Your task to perform on an android device: allow cookies in the chrome app Image 0: 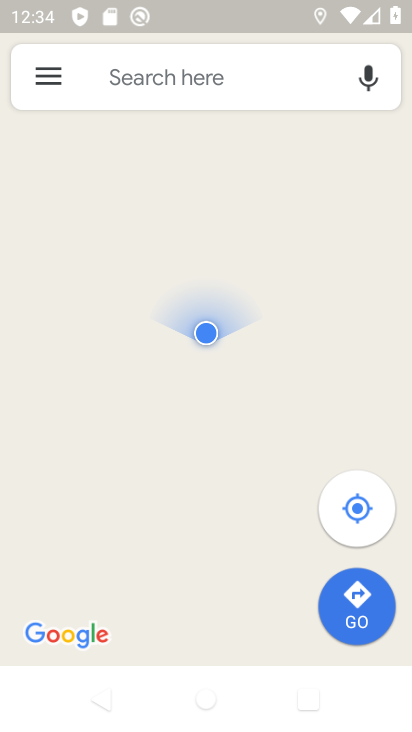
Step 0: press home button
Your task to perform on an android device: allow cookies in the chrome app Image 1: 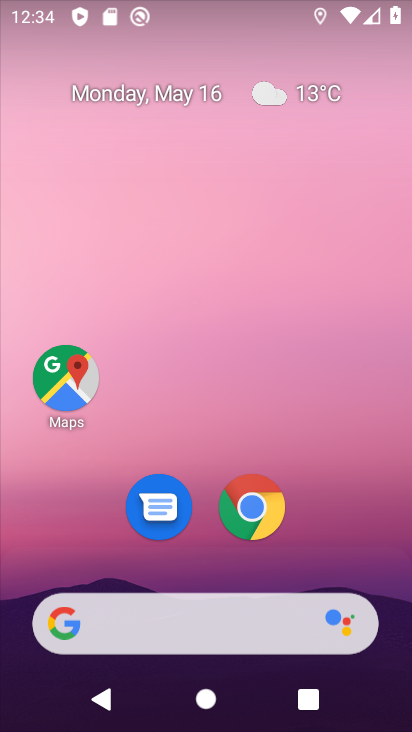
Step 1: click (254, 512)
Your task to perform on an android device: allow cookies in the chrome app Image 2: 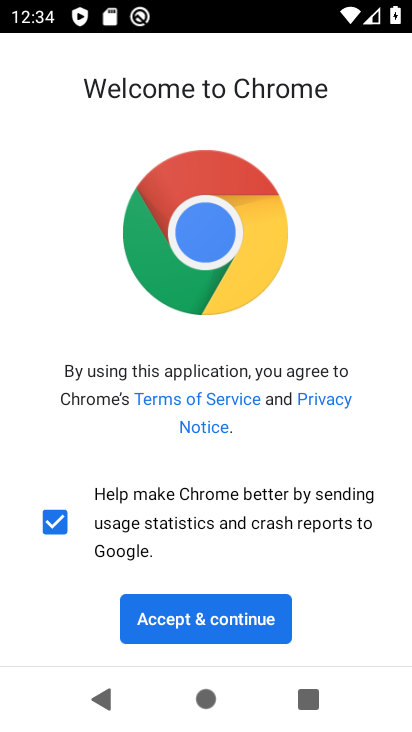
Step 2: click (231, 623)
Your task to perform on an android device: allow cookies in the chrome app Image 3: 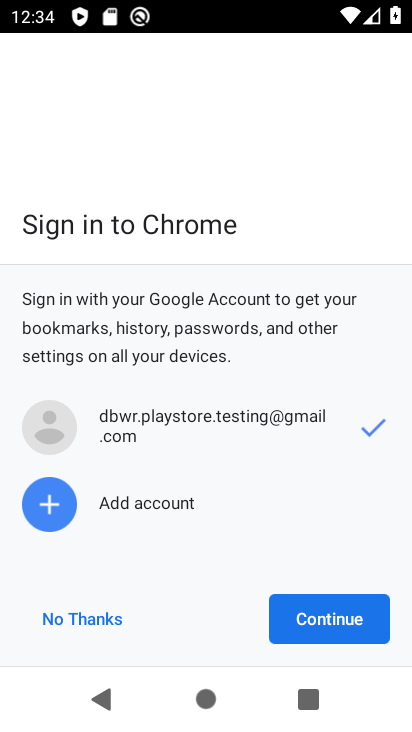
Step 3: click (334, 628)
Your task to perform on an android device: allow cookies in the chrome app Image 4: 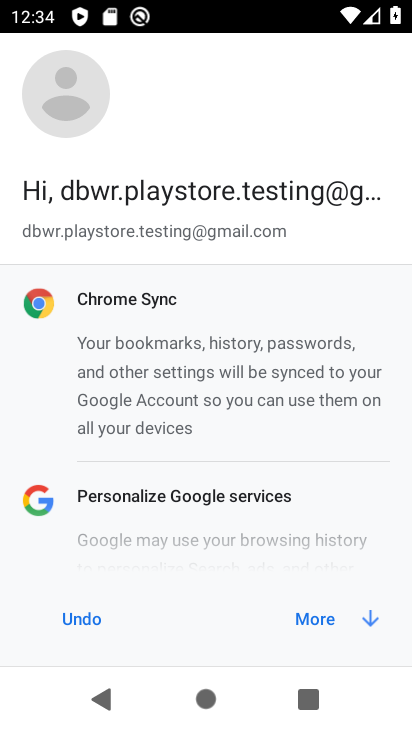
Step 4: click (316, 628)
Your task to perform on an android device: allow cookies in the chrome app Image 5: 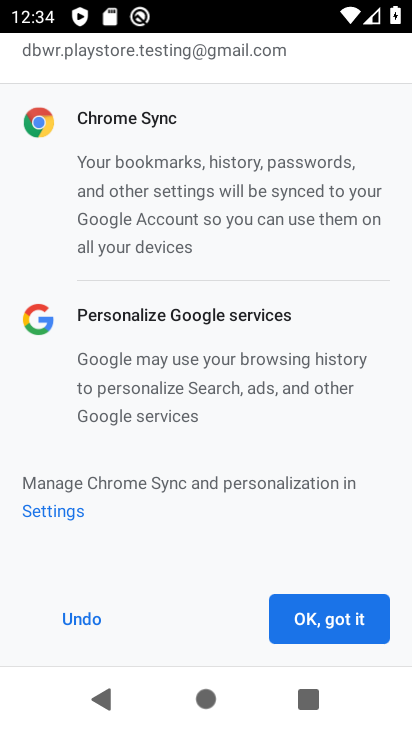
Step 5: click (317, 627)
Your task to perform on an android device: allow cookies in the chrome app Image 6: 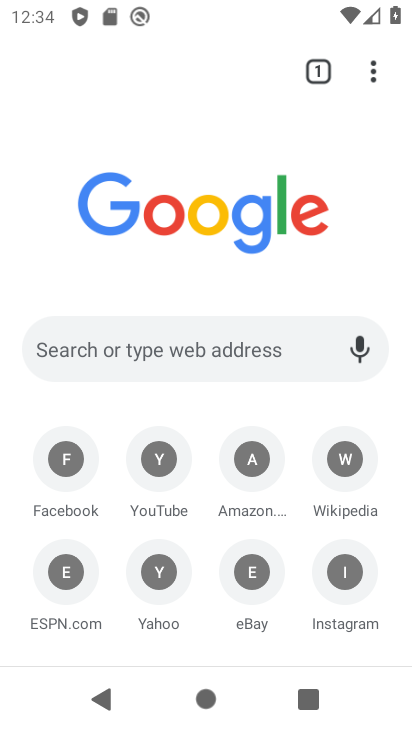
Step 6: click (378, 73)
Your task to perform on an android device: allow cookies in the chrome app Image 7: 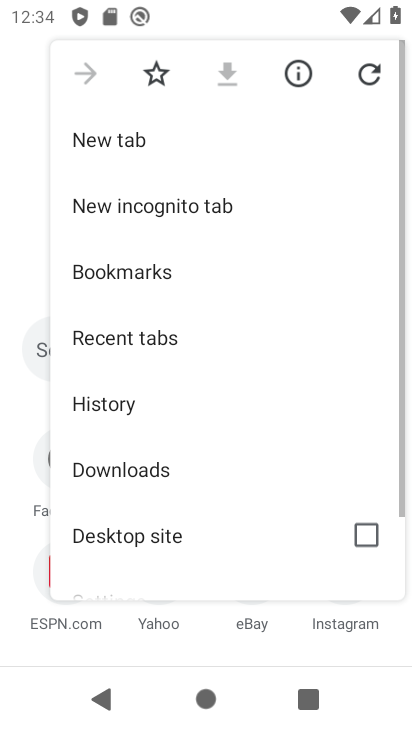
Step 7: drag from (211, 498) to (266, 266)
Your task to perform on an android device: allow cookies in the chrome app Image 8: 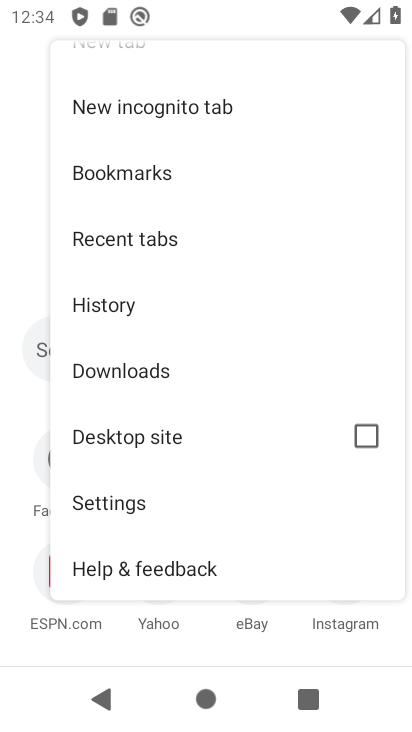
Step 8: click (142, 493)
Your task to perform on an android device: allow cookies in the chrome app Image 9: 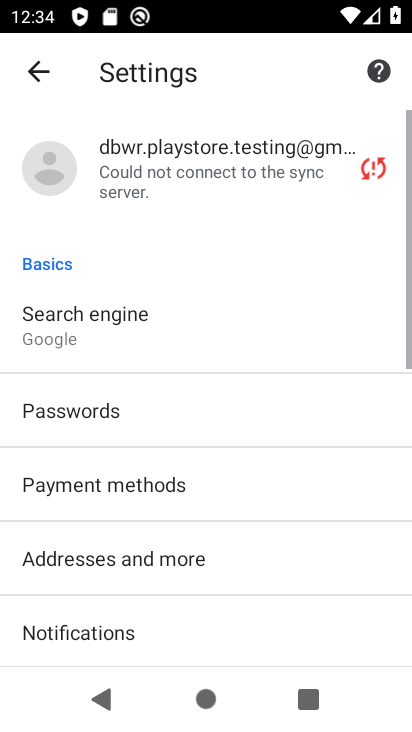
Step 9: drag from (146, 506) to (206, 286)
Your task to perform on an android device: allow cookies in the chrome app Image 10: 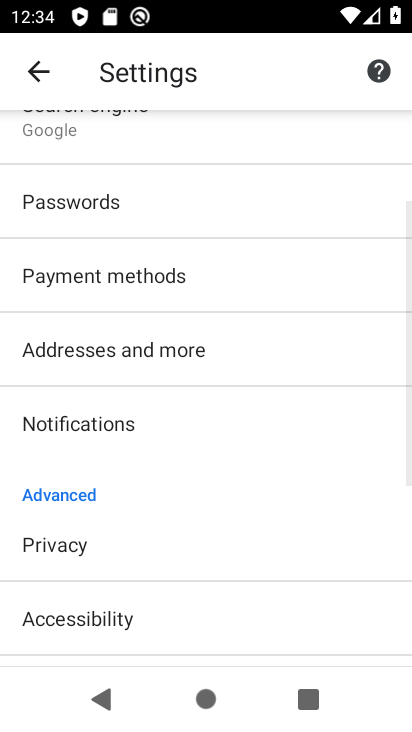
Step 10: drag from (173, 516) to (207, 359)
Your task to perform on an android device: allow cookies in the chrome app Image 11: 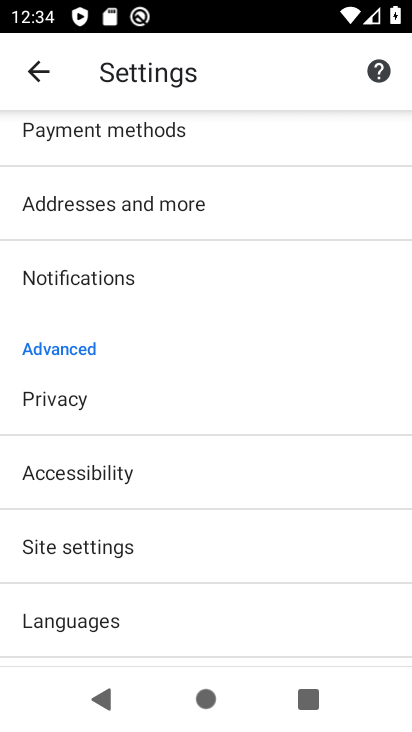
Step 11: click (128, 554)
Your task to perform on an android device: allow cookies in the chrome app Image 12: 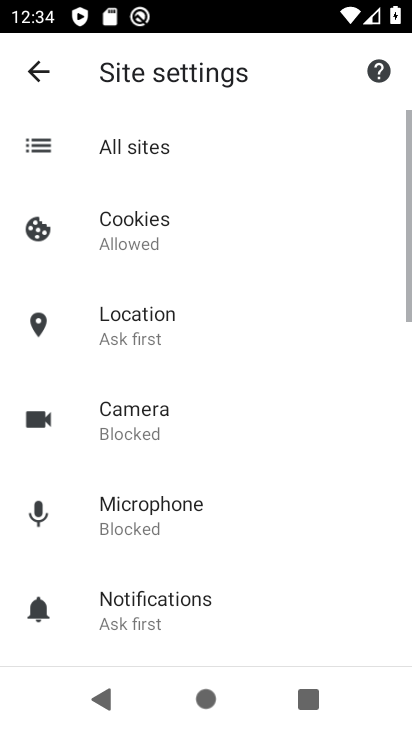
Step 12: click (133, 246)
Your task to perform on an android device: allow cookies in the chrome app Image 13: 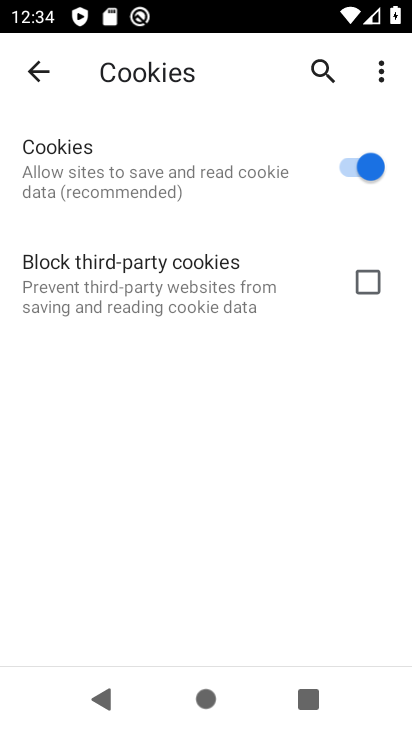
Step 13: task complete